Your task to perform on an android device: Go to Yahoo.com Image 0: 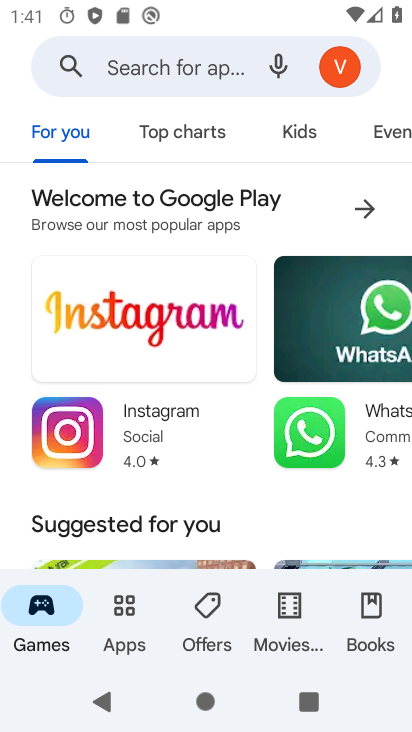
Step 0: press home button
Your task to perform on an android device: Go to Yahoo.com Image 1: 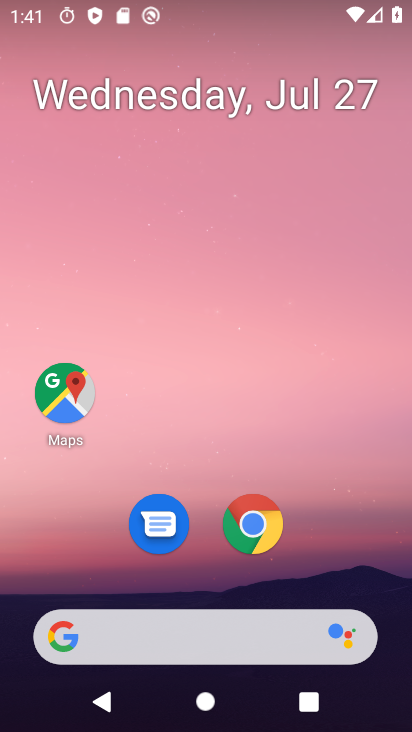
Step 1: click (255, 638)
Your task to perform on an android device: Go to Yahoo.com Image 2: 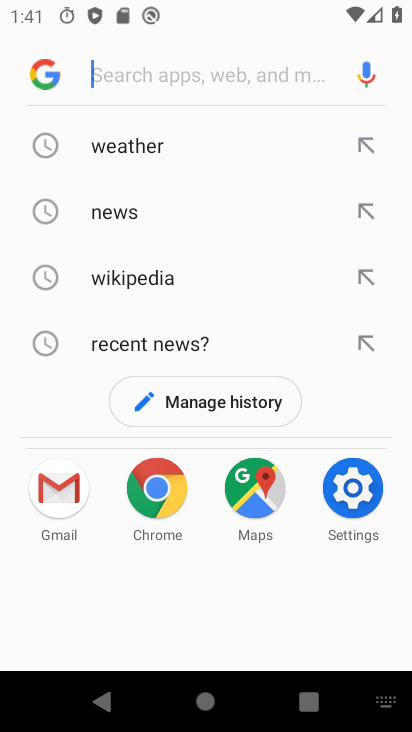
Step 2: type "yahoo.com"
Your task to perform on an android device: Go to Yahoo.com Image 3: 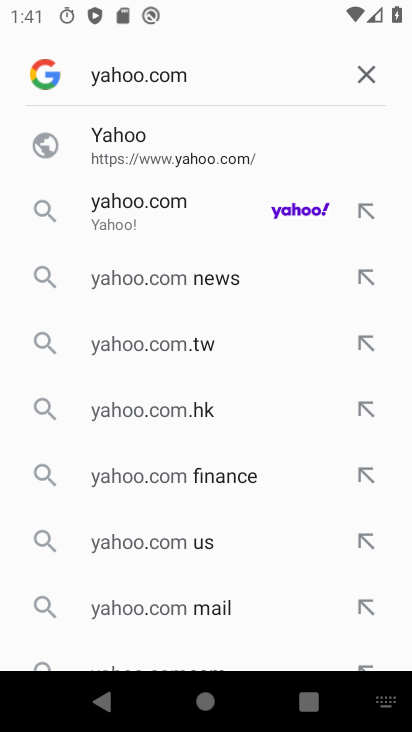
Step 3: click (148, 198)
Your task to perform on an android device: Go to Yahoo.com Image 4: 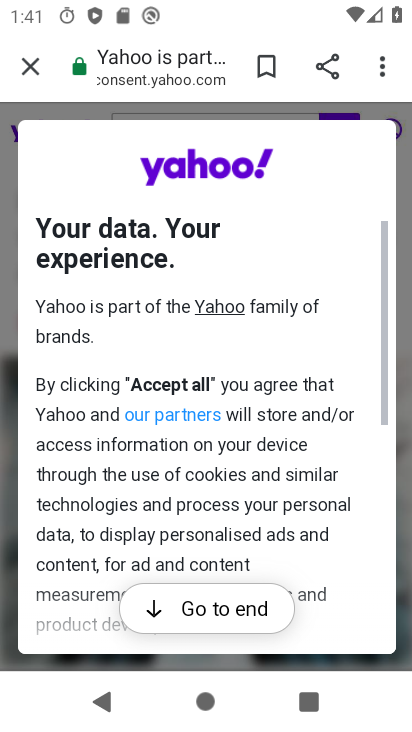
Step 4: click (236, 606)
Your task to perform on an android device: Go to Yahoo.com Image 5: 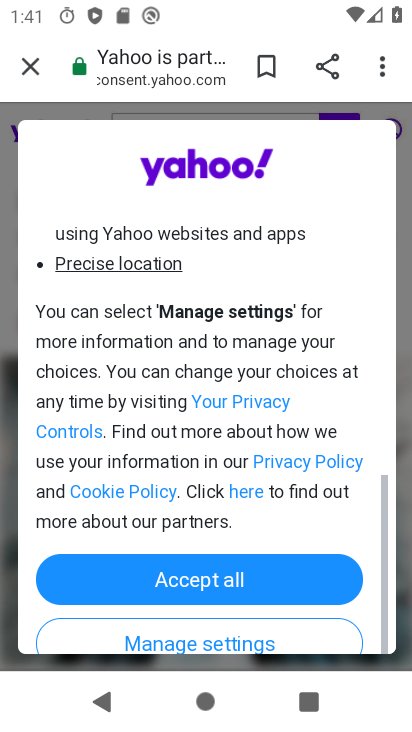
Step 5: click (238, 582)
Your task to perform on an android device: Go to Yahoo.com Image 6: 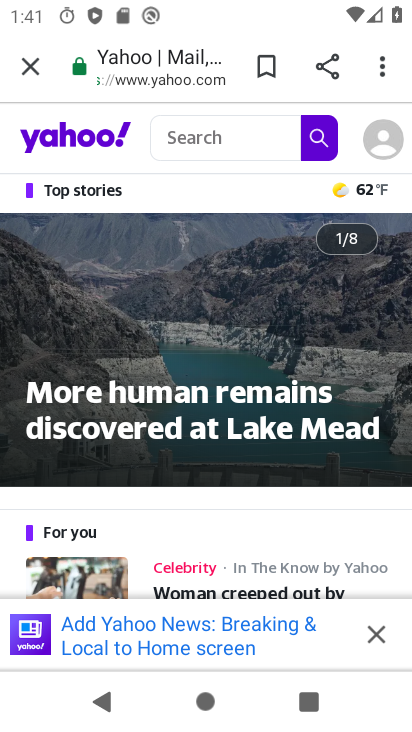
Step 6: task complete